Your task to perform on an android device: move an email to a new category in the gmail app Image 0: 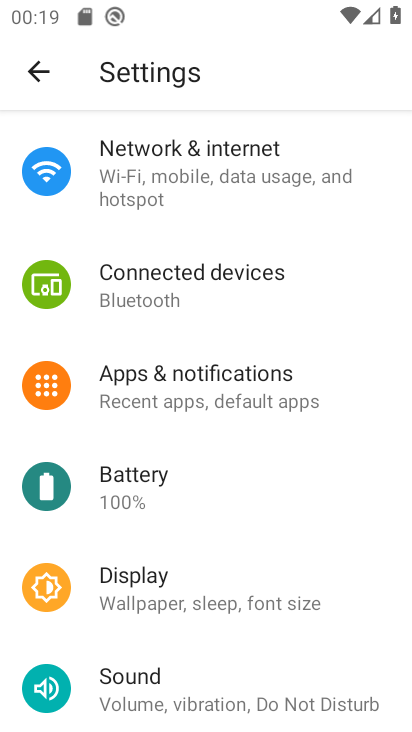
Step 0: press home button
Your task to perform on an android device: move an email to a new category in the gmail app Image 1: 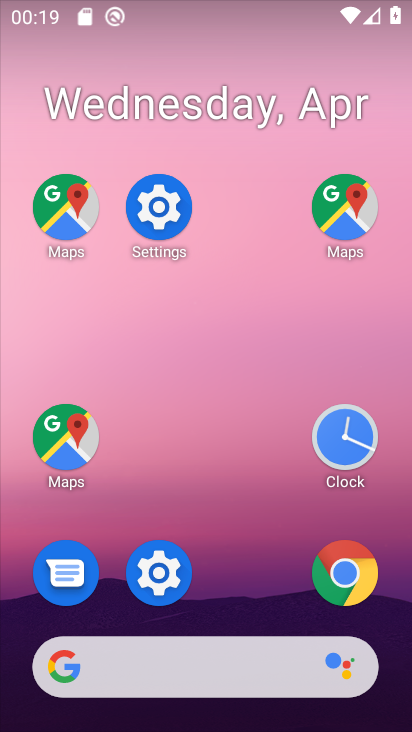
Step 1: drag from (201, 351) to (104, 8)
Your task to perform on an android device: move an email to a new category in the gmail app Image 2: 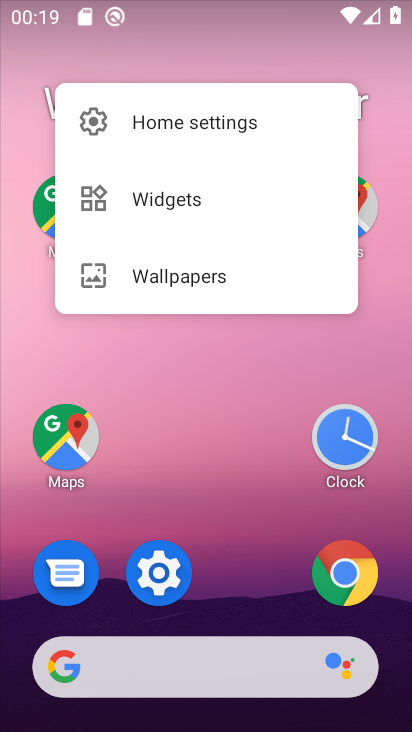
Step 2: drag from (204, 421) to (141, 189)
Your task to perform on an android device: move an email to a new category in the gmail app Image 3: 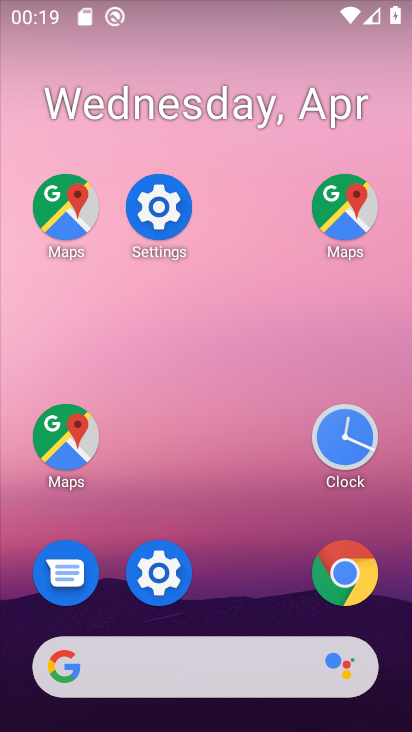
Step 3: click (97, 59)
Your task to perform on an android device: move an email to a new category in the gmail app Image 4: 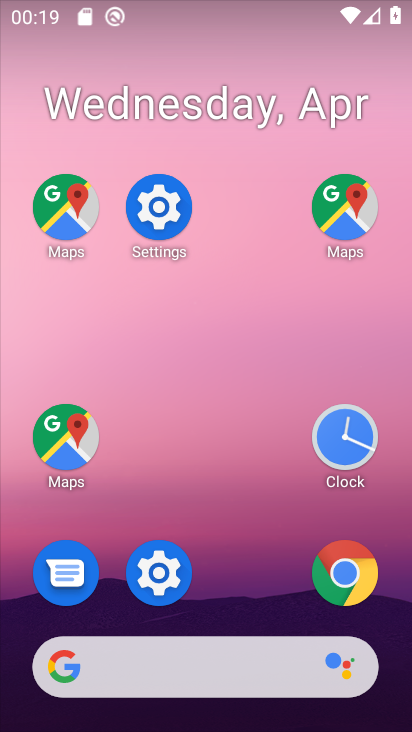
Step 4: drag from (124, 315) to (39, 4)
Your task to perform on an android device: move an email to a new category in the gmail app Image 5: 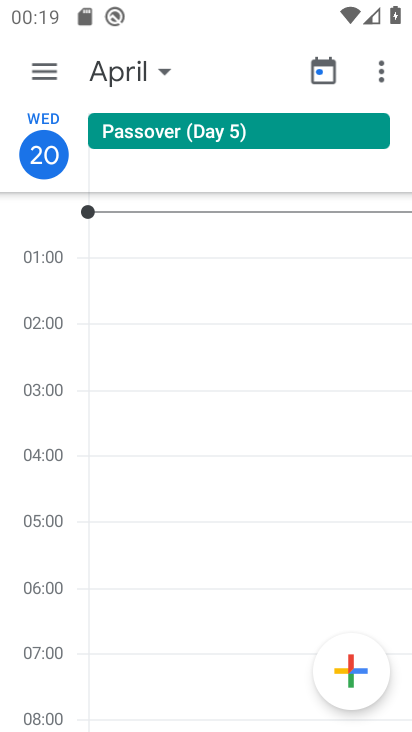
Step 5: press home button
Your task to perform on an android device: move an email to a new category in the gmail app Image 6: 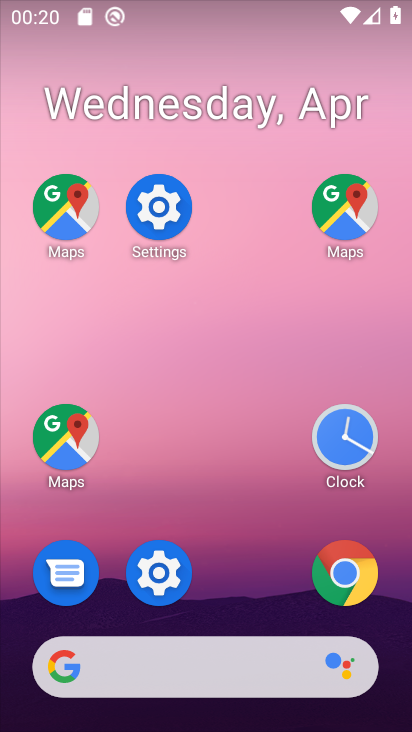
Step 6: drag from (166, 184) to (162, 143)
Your task to perform on an android device: move an email to a new category in the gmail app Image 7: 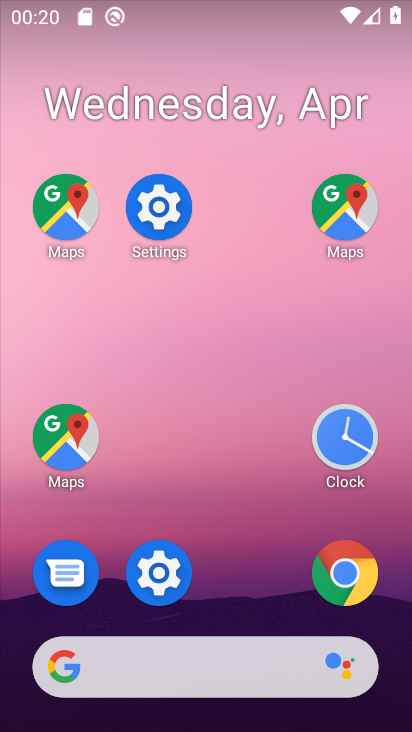
Step 7: drag from (228, 447) to (213, 106)
Your task to perform on an android device: move an email to a new category in the gmail app Image 8: 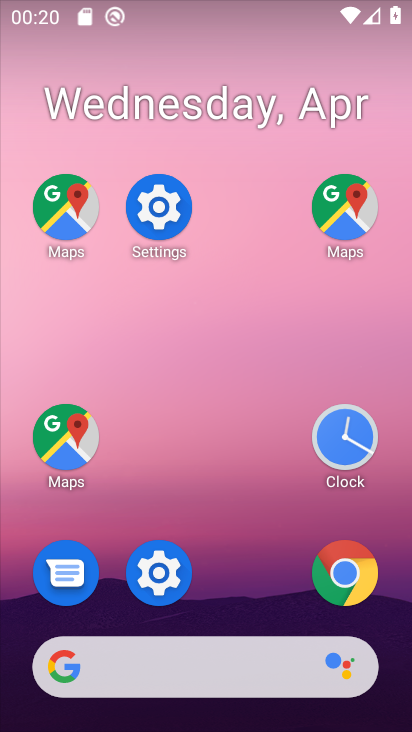
Step 8: drag from (87, 220) to (12, 119)
Your task to perform on an android device: move an email to a new category in the gmail app Image 9: 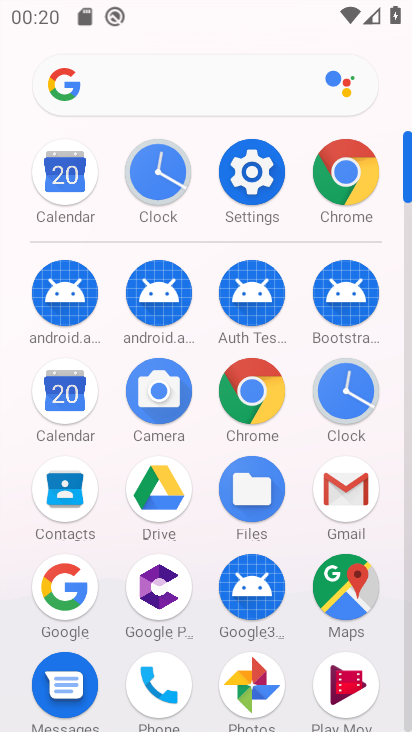
Step 9: click (351, 500)
Your task to perform on an android device: move an email to a new category in the gmail app Image 10: 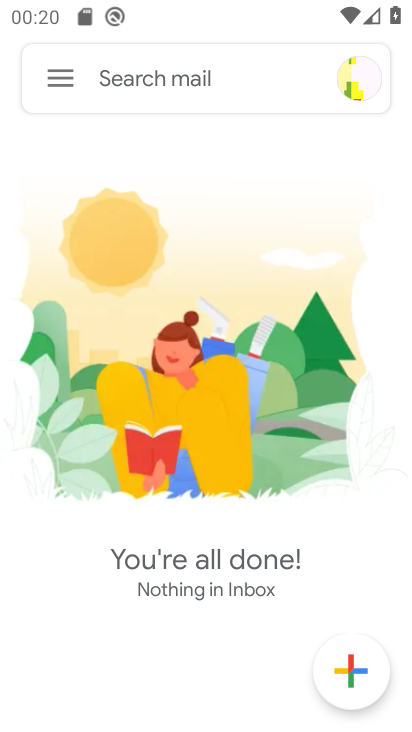
Step 10: click (54, 66)
Your task to perform on an android device: move an email to a new category in the gmail app Image 11: 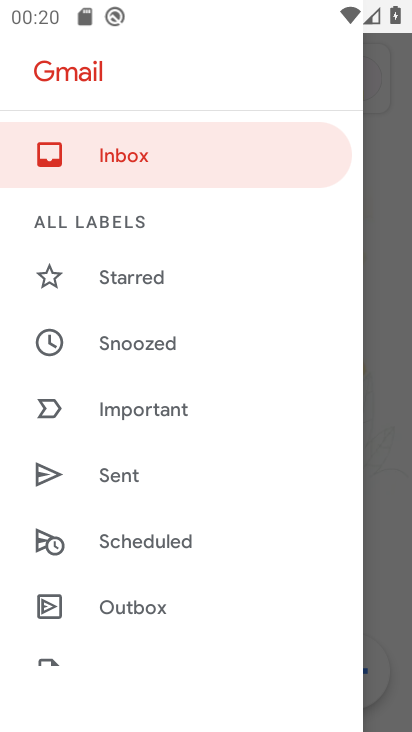
Step 11: drag from (197, 475) to (123, 182)
Your task to perform on an android device: move an email to a new category in the gmail app Image 12: 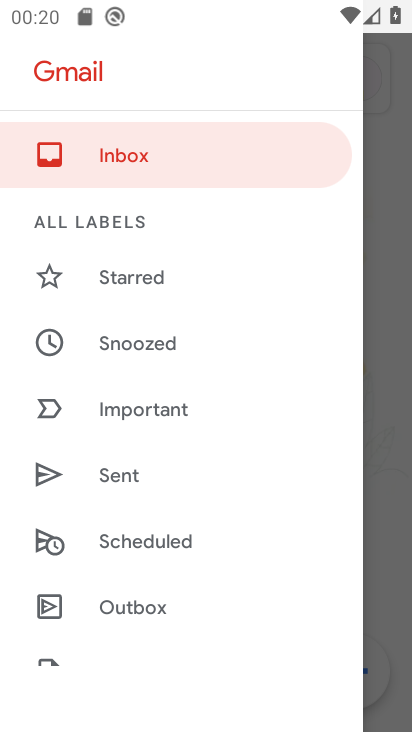
Step 12: drag from (179, 474) to (100, 257)
Your task to perform on an android device: move an email to a new category in the gmail app Image 13: 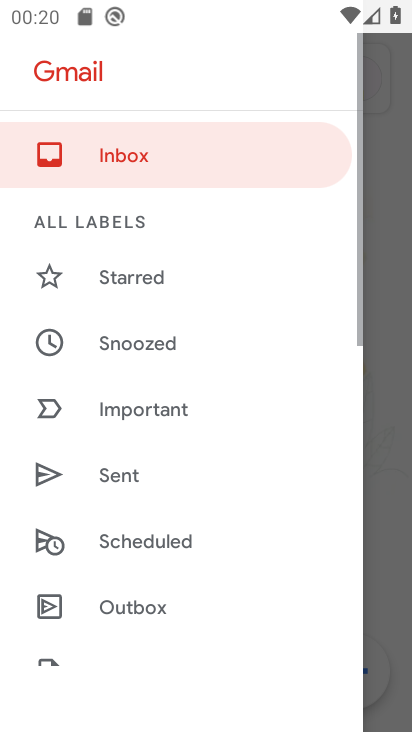
Step 13: drag from (191, 583) to (139, 271)
Your task to perform on an android device: move an email to a new category in the gmail app Image 14: 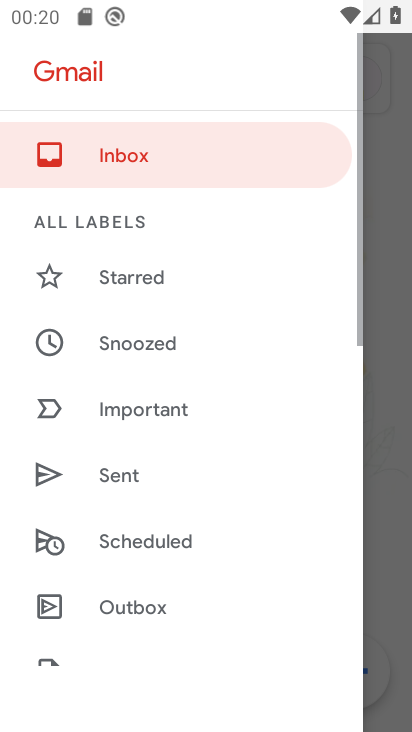
Step 14: drag from (187, 470) to (157, 243)
Your task to perform on an android device: move an email to a new category in the gmail app Image 15: 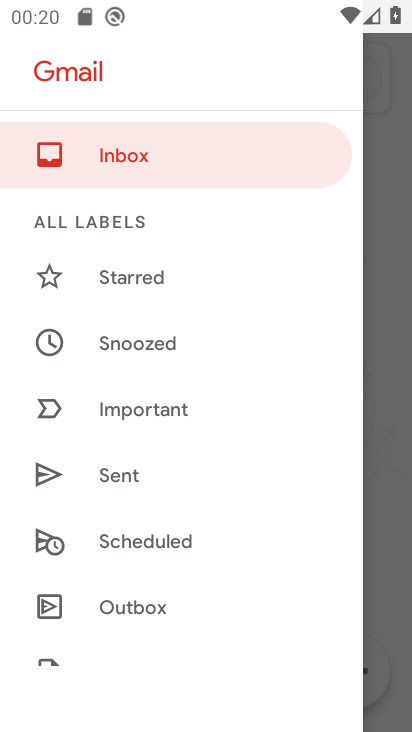
Step 15: drag from (162, 500) to (144, 238)
Your task to perform on an android device: move an email to a new category in the gmail app Image 16: 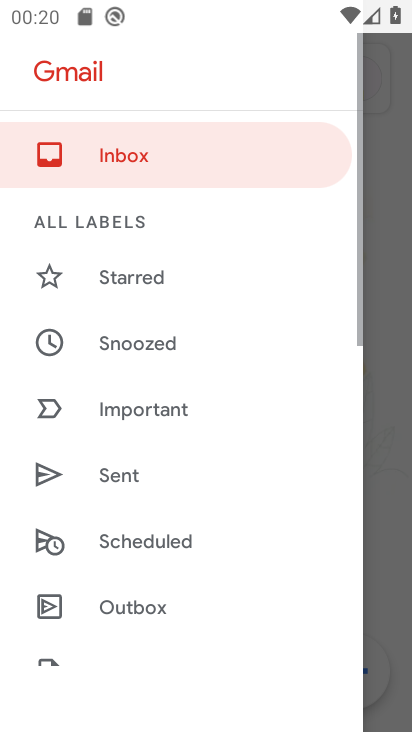
Step 16: drag from (159, 571) to (166, 232)
Your task to perform on an android device: move an email to a new category in the gmail app Image 17: 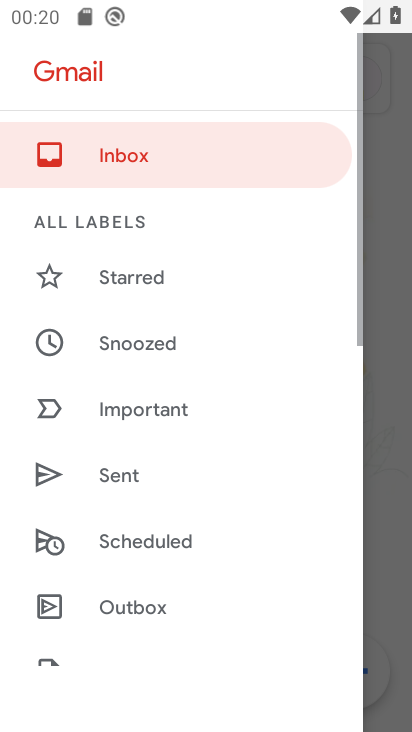
Step 17: click (136, 262)
Your task to perform on an android device: move an email to a new category in the gmail app Image 18: 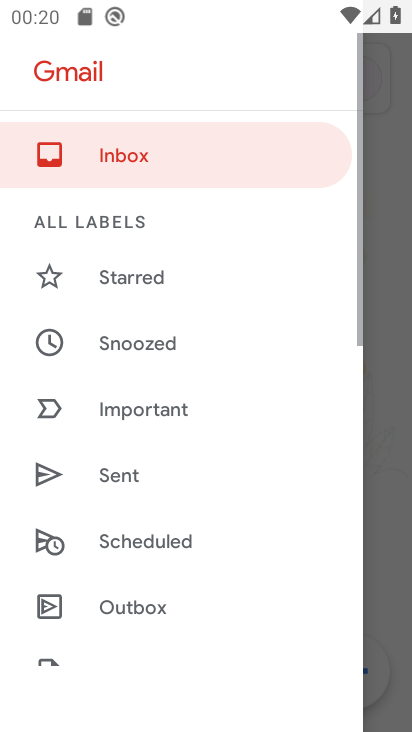
Step 18: drag from (67, 433) to (67, 296)
Your task to perform on an android device: move an email to a new category in the gmail app Image 19: 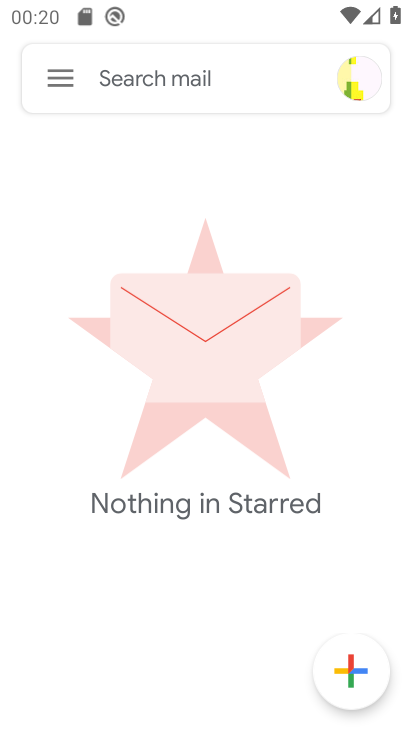
Step 19: click (54, 76)
Your task to perform on an android device: move an email to a new category in the gmail app Image 20: 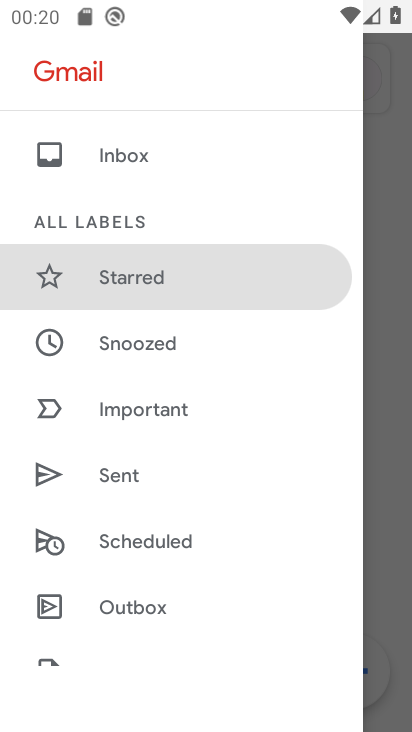
Step 20: drag from (211, 564) to (184, 343)
Your task to perform on an android device: move an email to a new category in the gmail app Image 21: 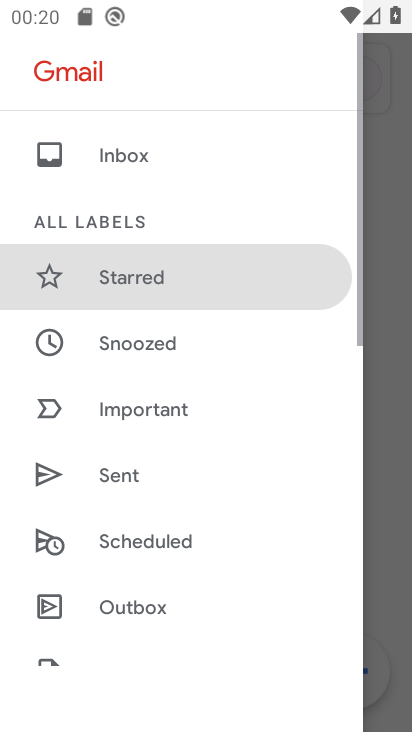
Step 21: drag from (185, 567) to (171, 214)
Your task to perform on an android device: move an email to a new category in the gmail app Image 22: 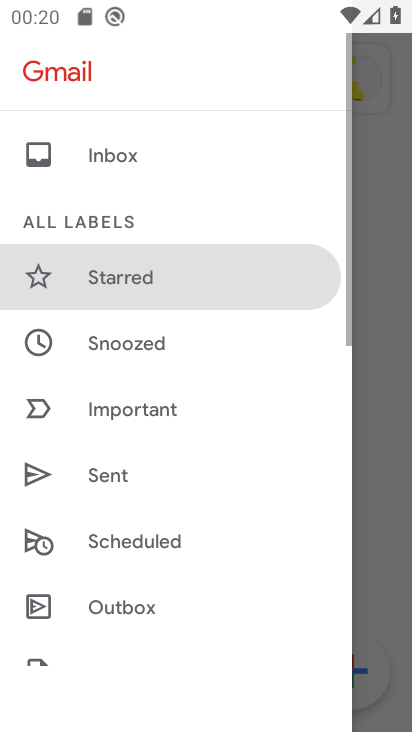
Step 22: drag from (186, 491) to (182, 128)
Your task to perform on an android device: move an email to a new category in the gmail app Image 23: 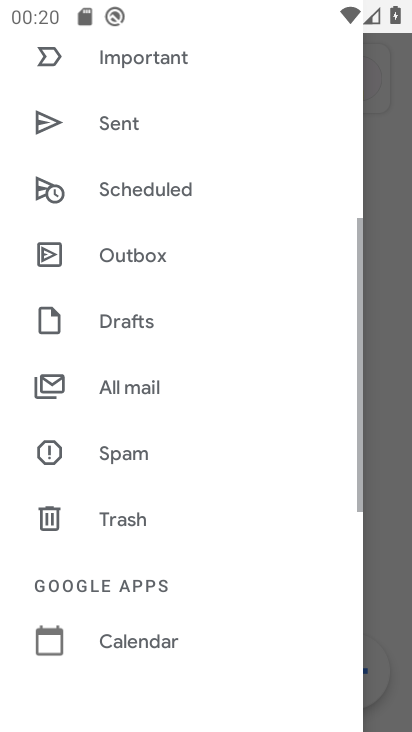
Step 23: drag from (144, 460) to (105, 293)
Your task to perform on an android device: move an email to a new category in the gmail app Image 24: 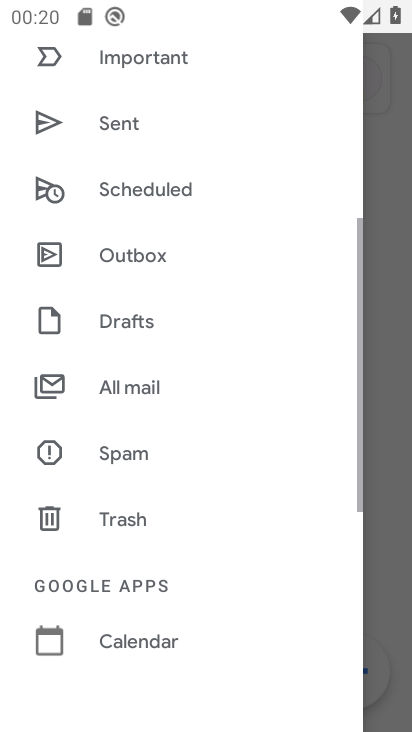
Step 24: click (133, 391)
Your task to perform on an android device: move an email to a new category in the gmail app Image 25: 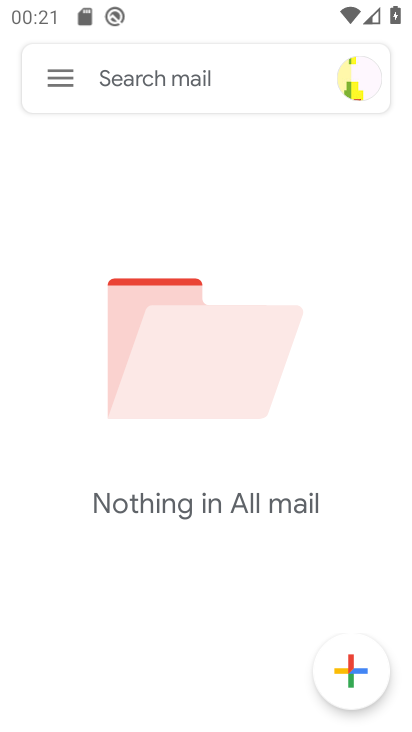
Step 25: task complete